Your task to perform on an android device: change your default location settings in chrome Image 0: 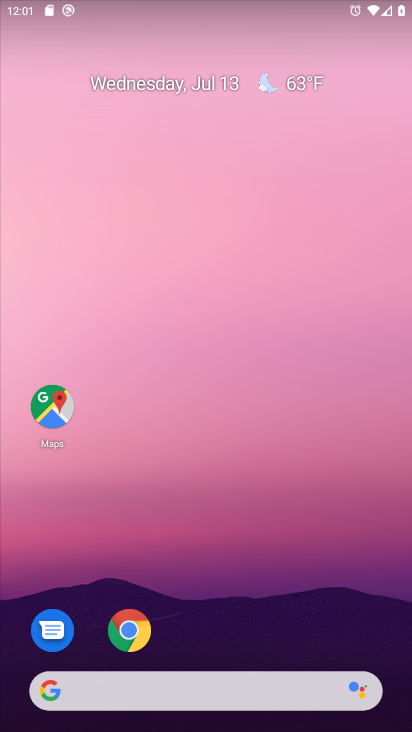
Step 0: drag from (250, 703) to (215, 0)
Your task to perform on an android device: change your default location settings in chrome Image 1: 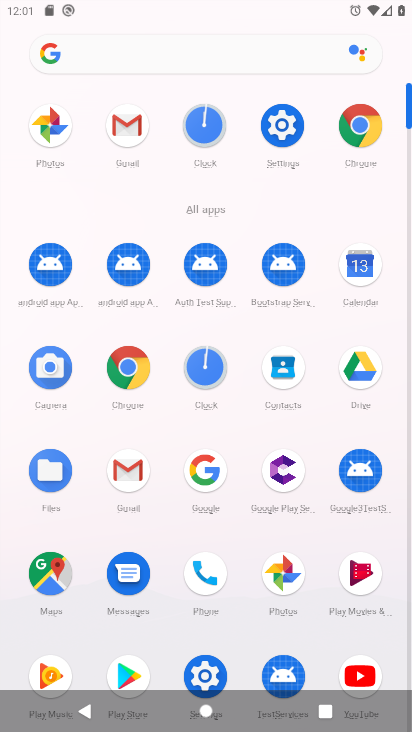
Step 1: click (351, 143)
Your task to perform on an android device: change your default location settings in chrome Image 2: 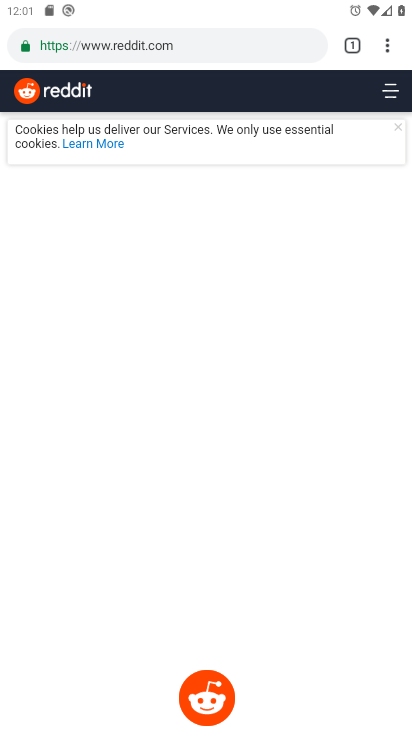
Step 2: click (383, 51)
Your task to perform on an android device: change your default location settings in chrome Image 3: 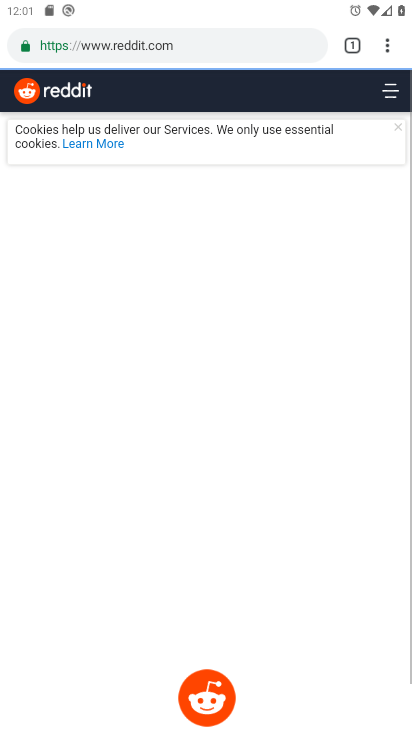
Step 3: drag from (383, 51) to (259, 552)
Your task to perform on an android device: change your default location settings in chrome Image 4: 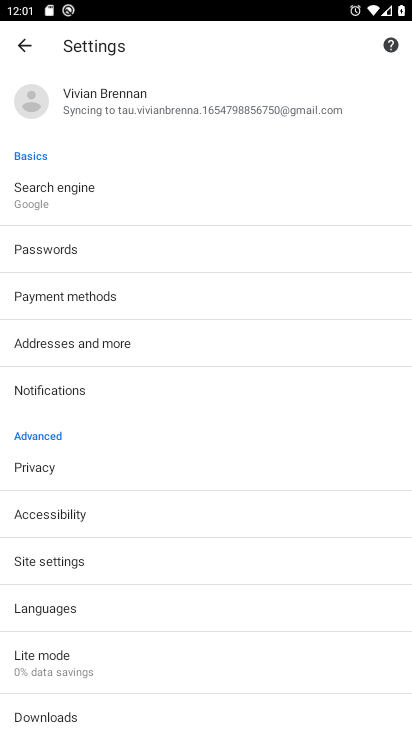
Step 4: click (126, 552)
Your task to perform on an android device: change your default location settings in chrome Image 5: 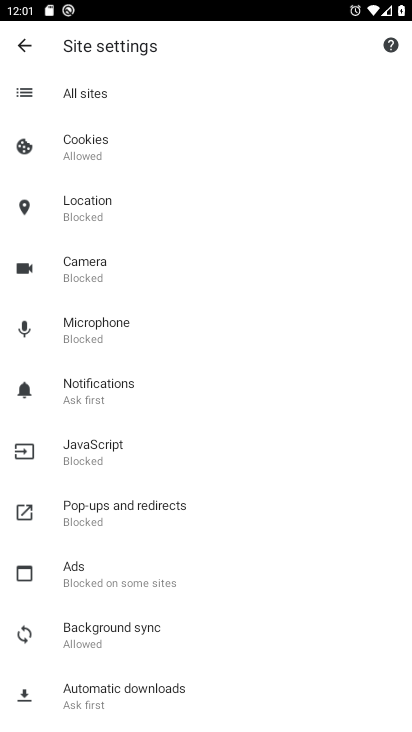
Step 5: click (106, 212)
Your task to perform on an android device: change your default location settings in chrome Image 6: 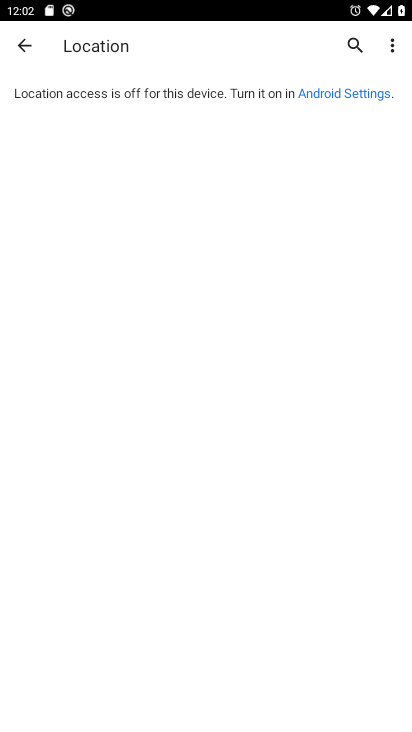
Step 6: task complete